Your task to perform on an android device: Open the calendar app, open the side menu, and click the "Day" option Image 0: 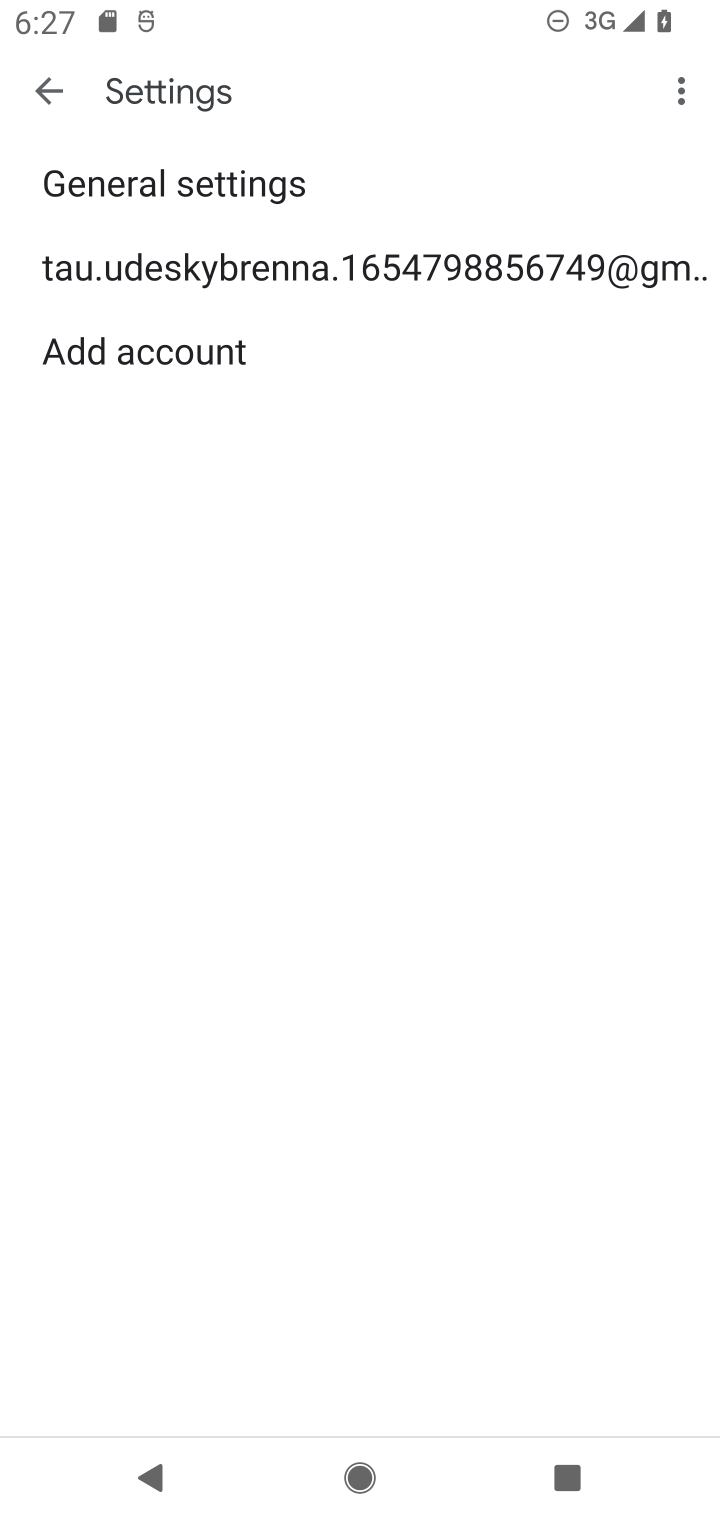
Step 0: press home button
Your task to perform on an android device: Open the calendar app, open the side menu, and click the "Day" option Image 1: 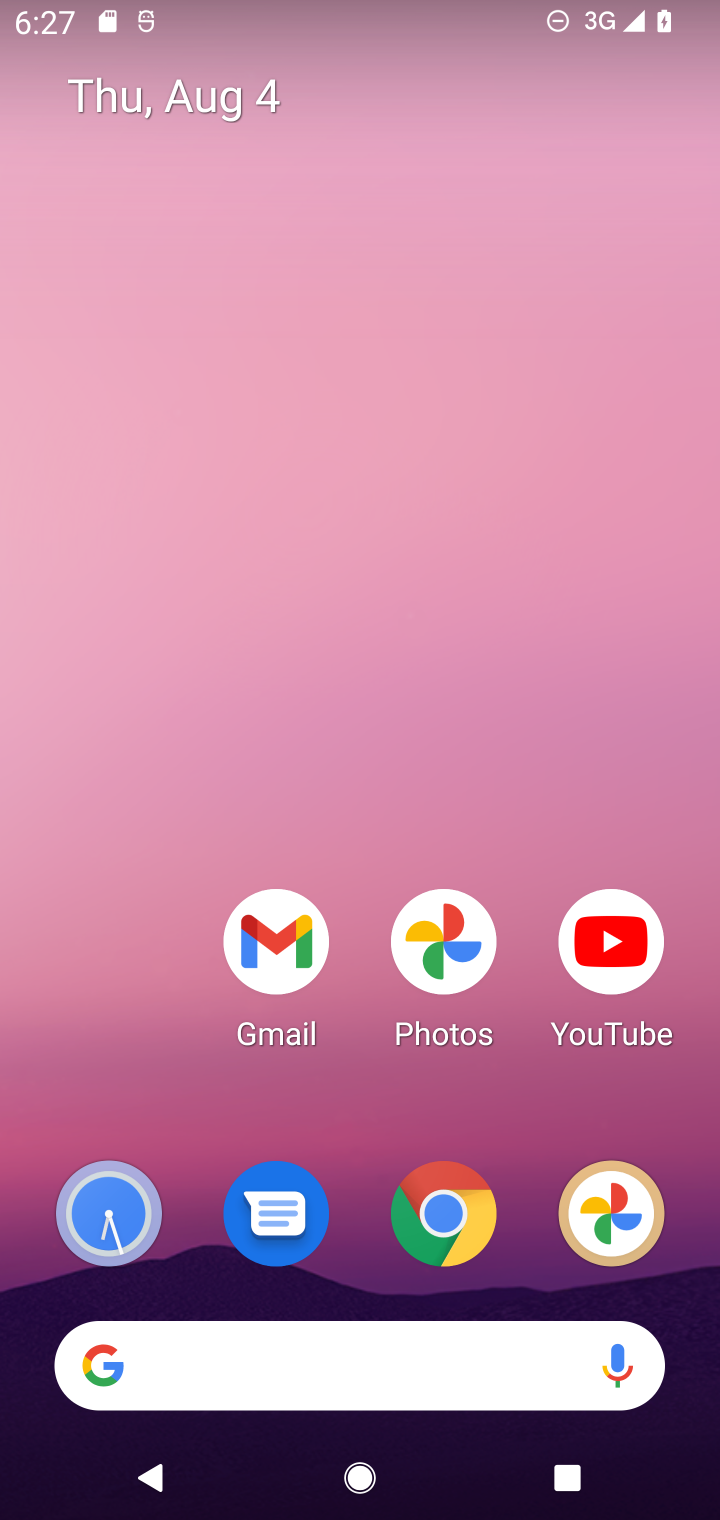
Step 1: drag from (165, 1132) to (116, 235)
Your task to perform on an android device: Open the calendar app, open the side menu, and click the "Day" option Image 2: 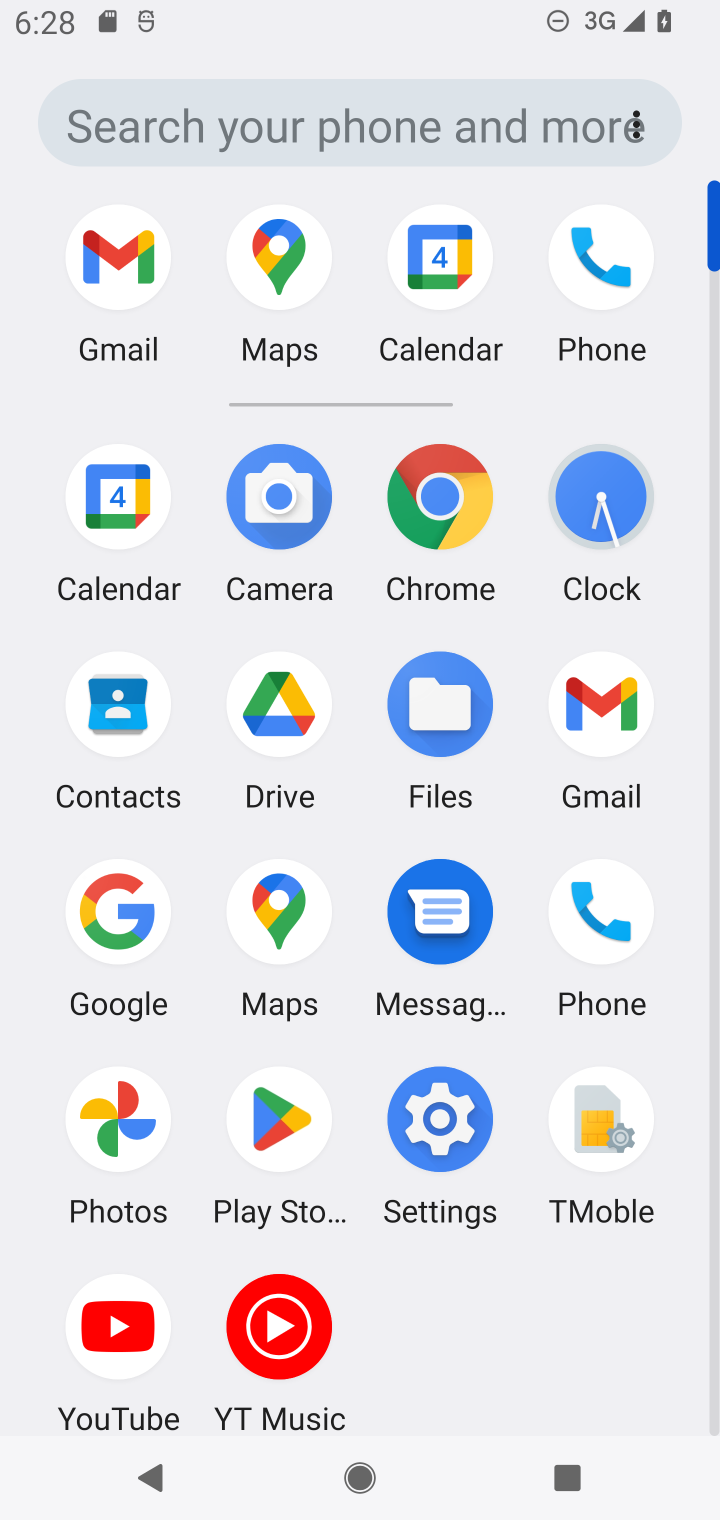
Step 2: click (121, 502)
Your task to perform on an android device: Open the calendar app, open the side menu, and click the "Day" option Image 3: 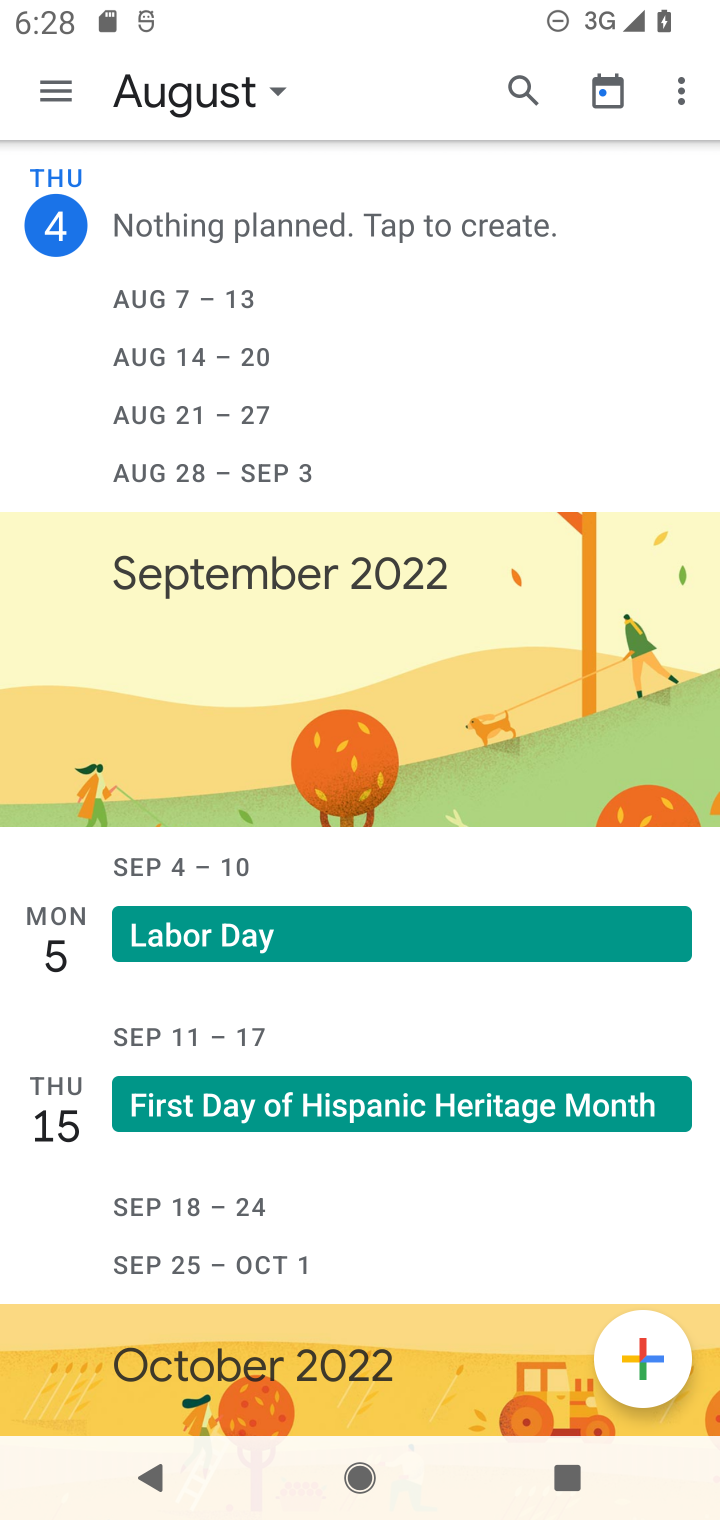
Step 3: click (52, 84)
Your task to perform on an android device: Open the calendar app, open the side menu, and click the "Day" option Image 4: 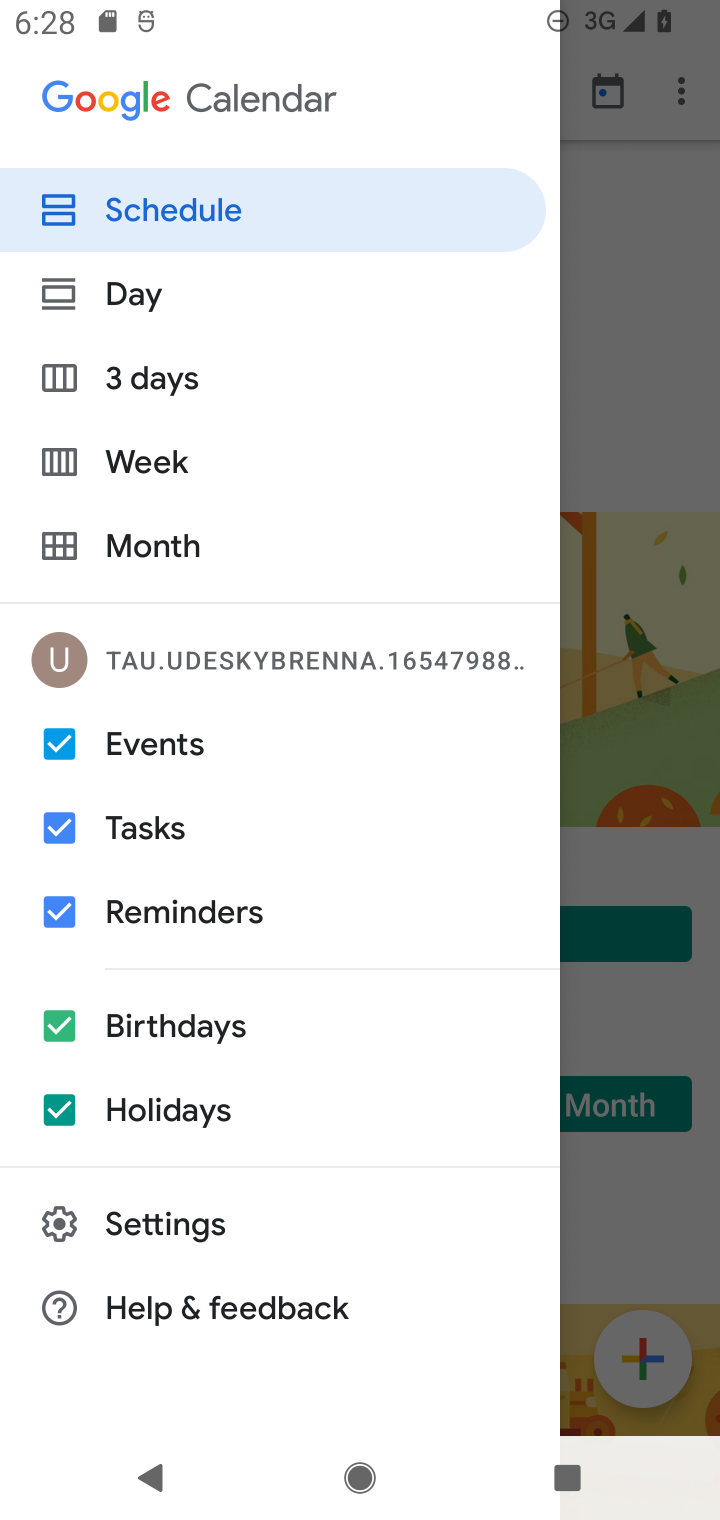
Step 4: click (154, 291)
Your task to perform on an android device: Open the calendar app, open the side menu, and click the "Day" option Image 5: 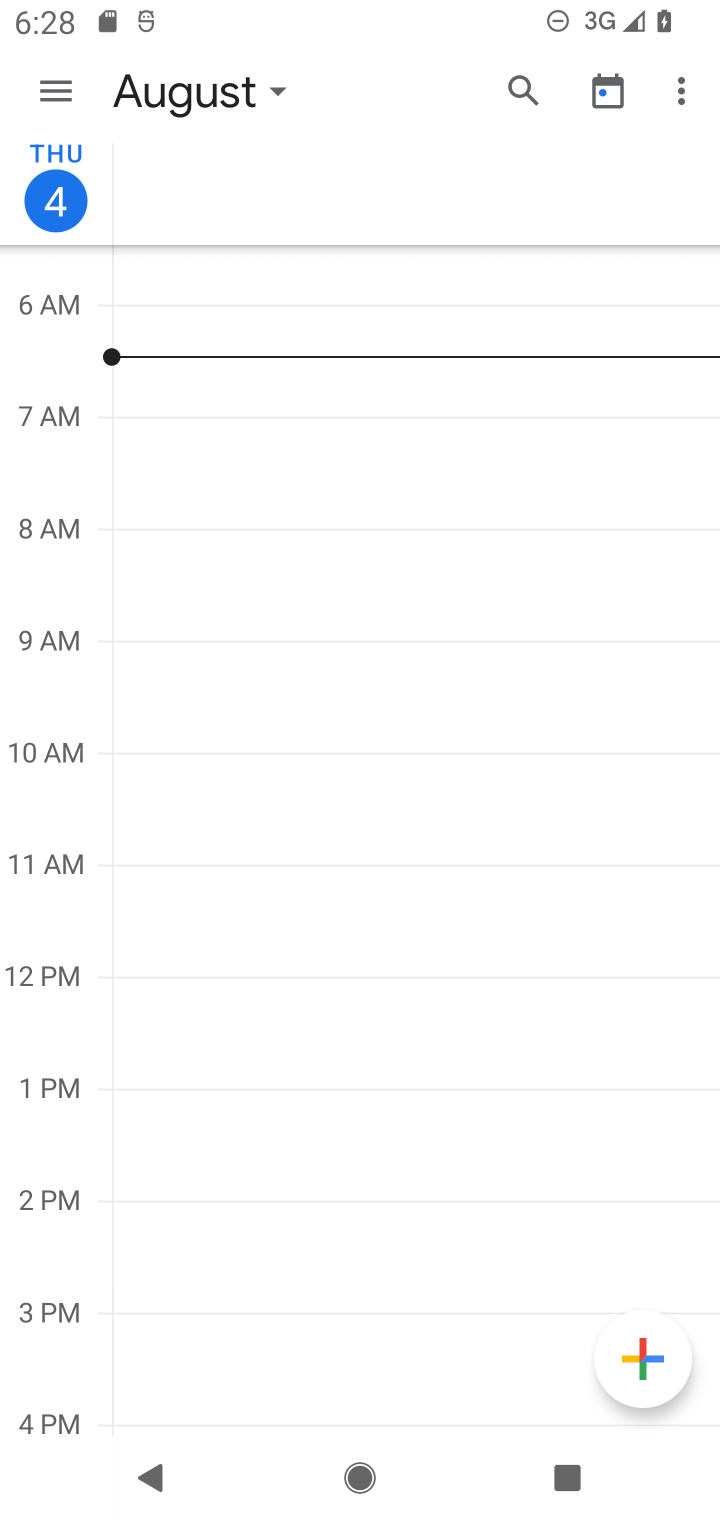
Step 5: task complete